Your task to perform on an android device: Open Reddit.com Image 0: 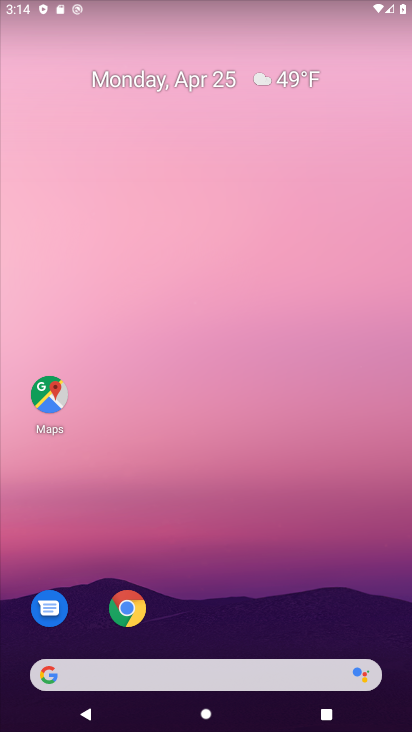
Step 0: click (113, 614)
Your task to perform on an android device: Open Reddit.com Image 1: 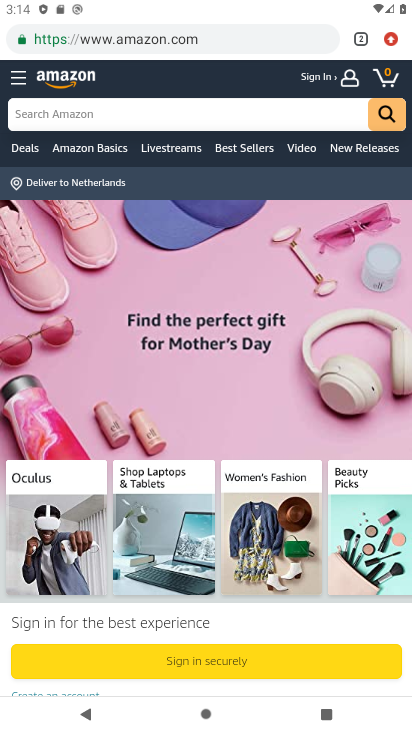
Step 1: click (156, 47)
Your task to perform on an android device: Open Reddit.com Image 2: 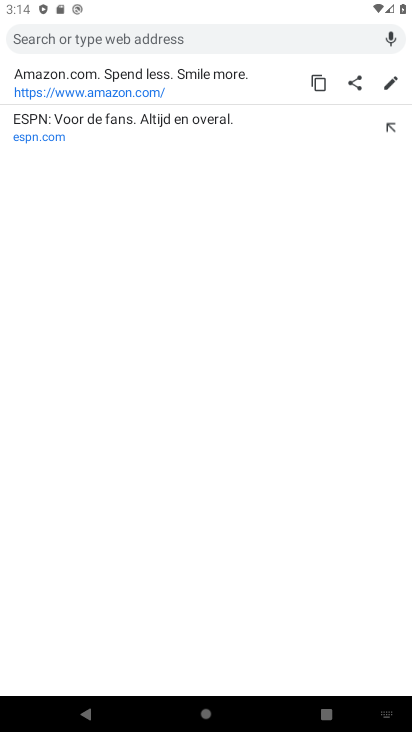
Step 2: type "reddit.com"
Your task to perform on an android device: Open Reddit.com Image 3: 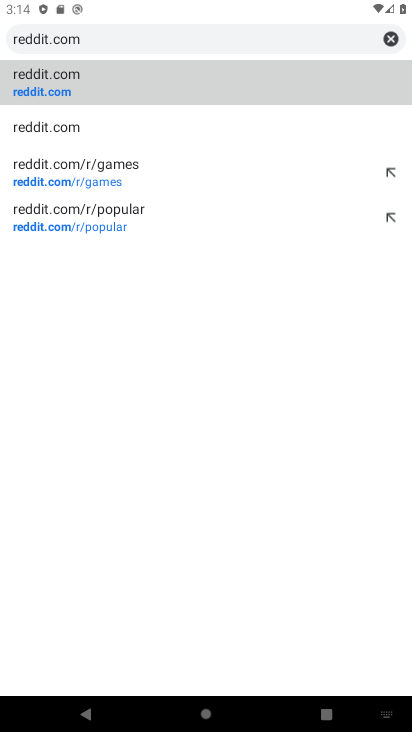
Step 3: click (100, 82)
Your task to perform on an android device: Open Reddit.com Image 4: 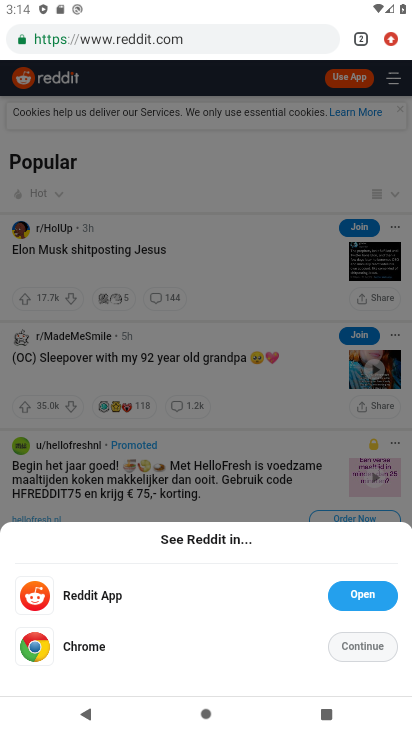
Step 4: task complete